Your task to perform on an android device: turn on airplane mode Image 0: 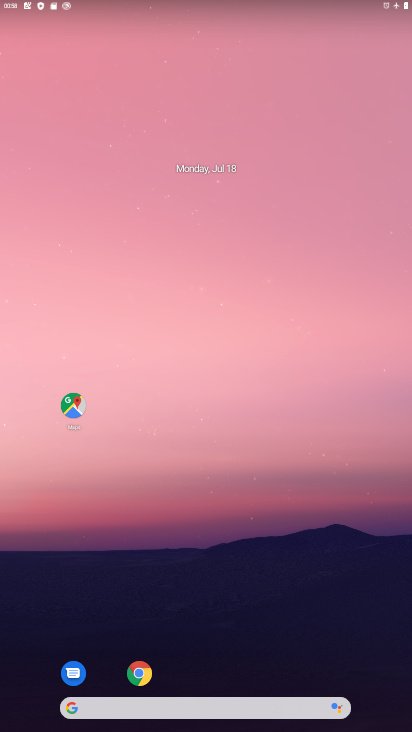
Step 0: drag from (235, 655) to (225, 179)
Your task to perform on an android device: turn on airplane mode Image 1: 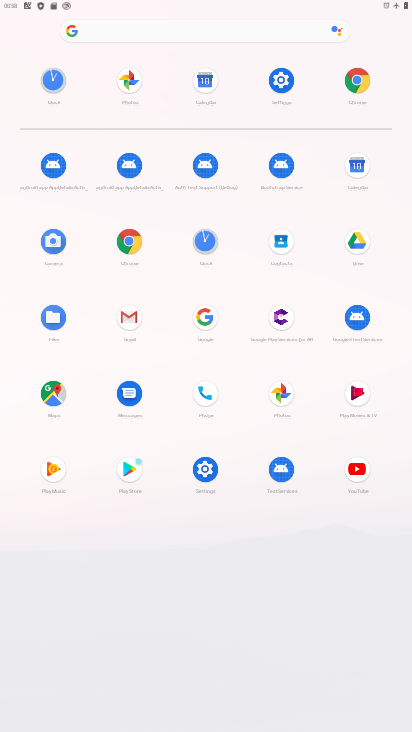
Step 1: click (286, 94)
Your task to perform on an android device: turn on airplane mode Image 2: 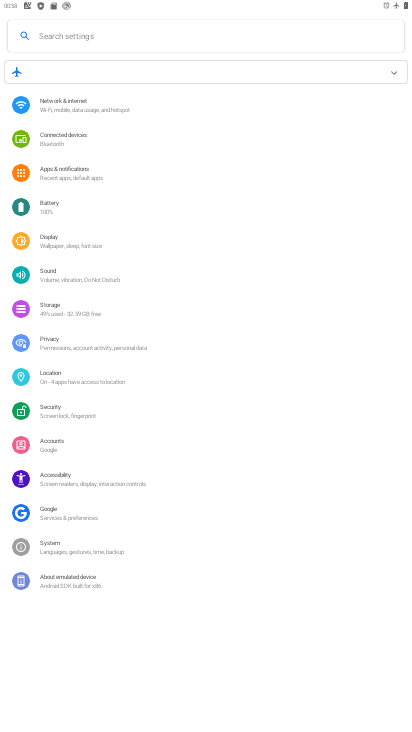
Step 2: click (387, 70)
Your task to perform on an android device: turn on airplane mode Image 3: 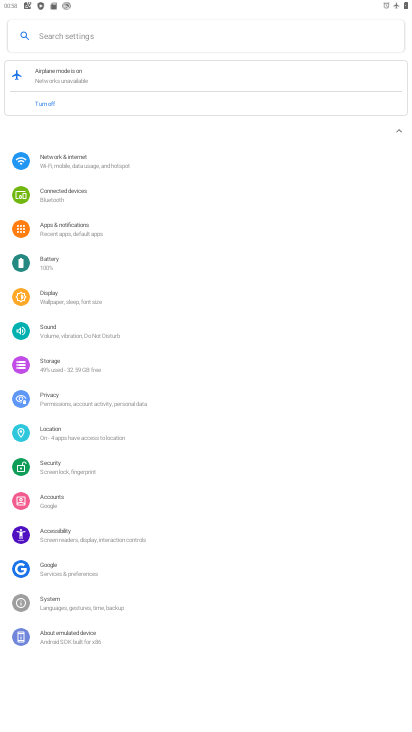
Step 3: click (59, 97)
Your task to perform on an android device: turn on airplane mode Image 4: 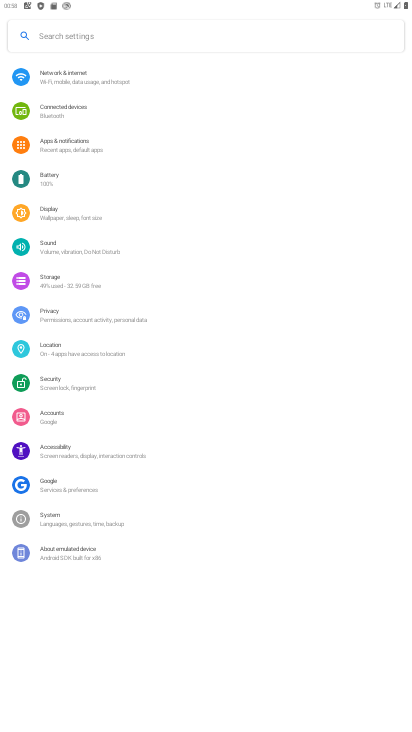
Step 4: task complete